Your task to perform on an android device: turn off javascript in the chrome app Image 0: 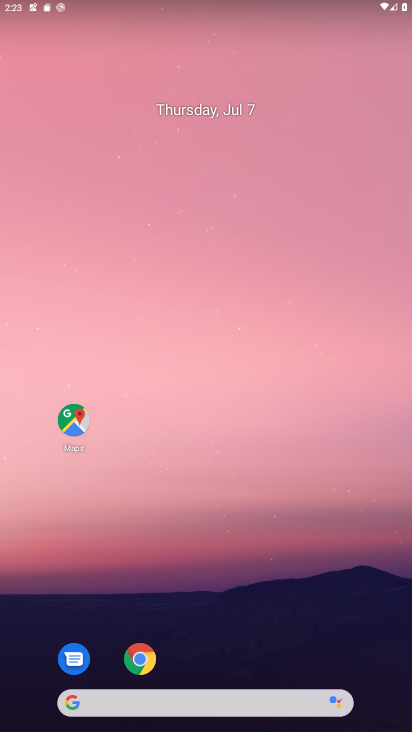
Step 0: drag from (177, 658) to (252, 89)
Your task to perform on an android device: turn off javascript in the chrome app Image 1: 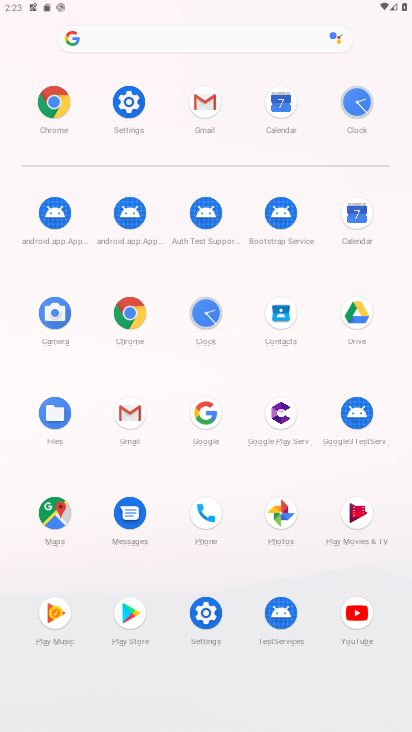
Step 1: click (128, 319)
Your task to perform on an android device: turn off javascript in the chrome app Image 2: 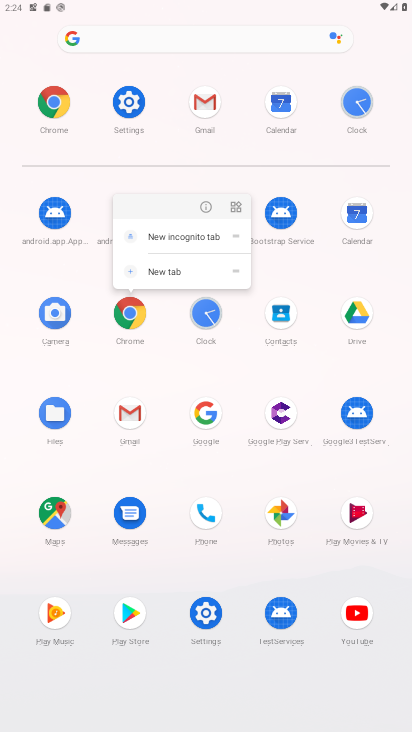
Step 2: click (212, 206)
Your task to perform on an android device: turn off javascript in the chrome app Image 3: 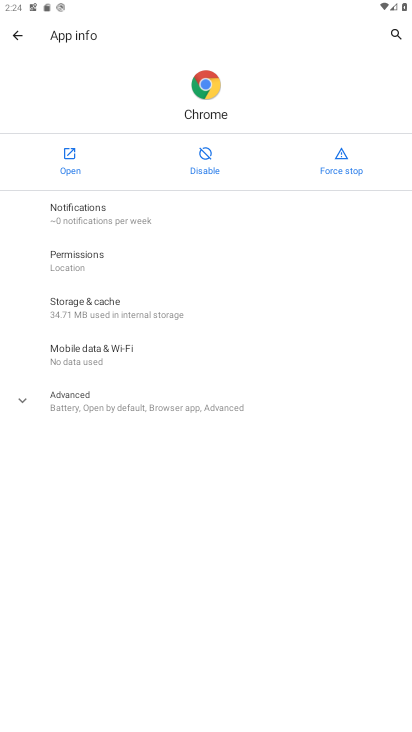
Step 3: click (62, 158)
Your task to perform on an android device: turn off javascript in the chrome app Image 4: 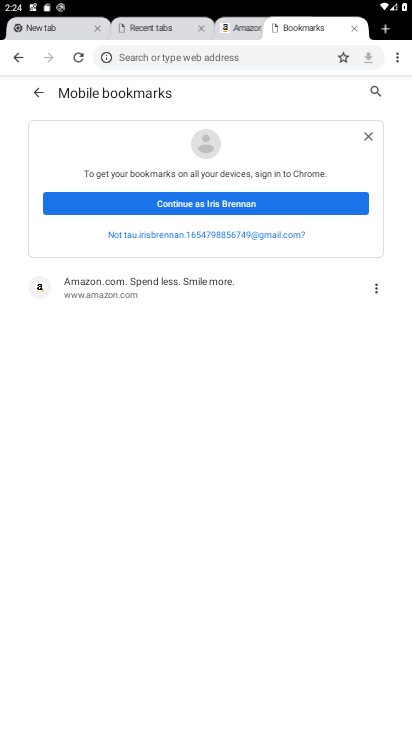
Step 4: click (391, 58)
Your task to perform on an android device: turn off javascript in the chrome app Image 5: 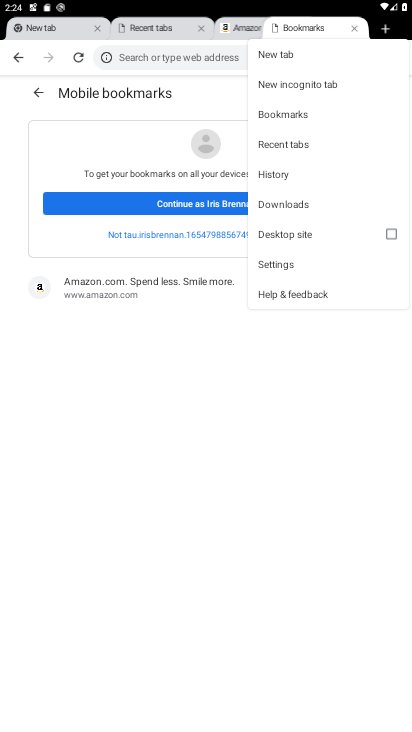
Step 5: click (276, 264)
Your task to perform on an android device: turn off javascript in the chrome app Image 6: 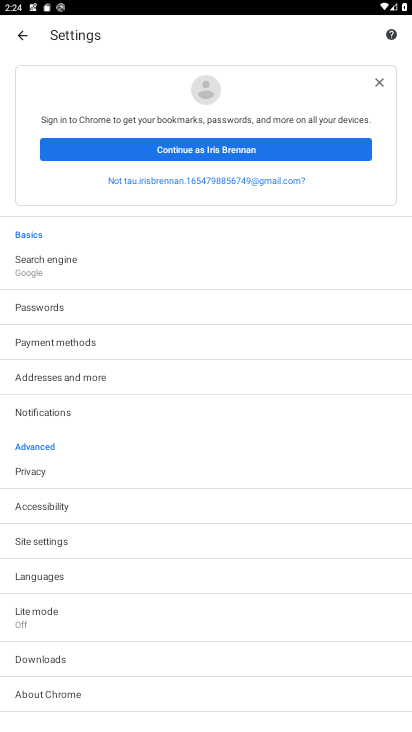
Step 6: click (59, 539)
Your task to perform on an android device: turn off javascript in the chrome app Image 7: 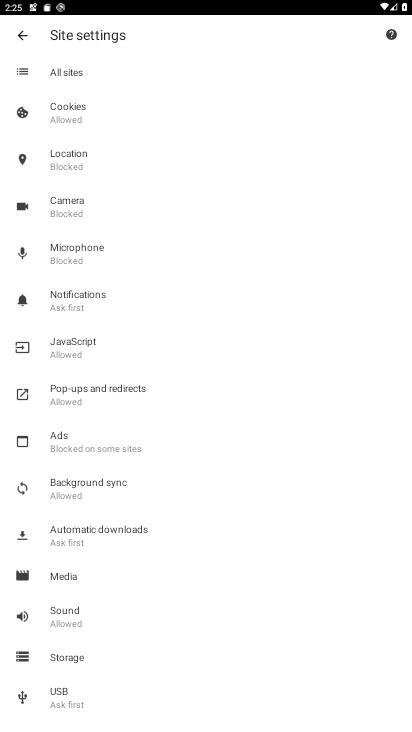
Step 7: click (109, 346)
Your task to perform on an android device: turn off javascript in the chrome app Image 8: 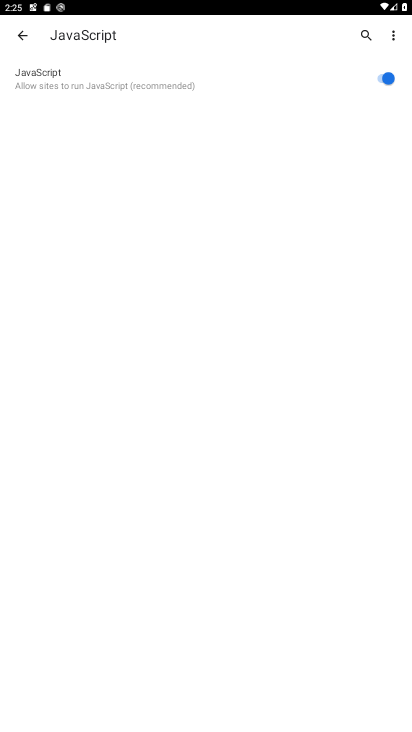
Step 8: drag from (164, 520) to (194, 185)
Your task to perform on an android device: turn off javascript in the chrome app Image 9: 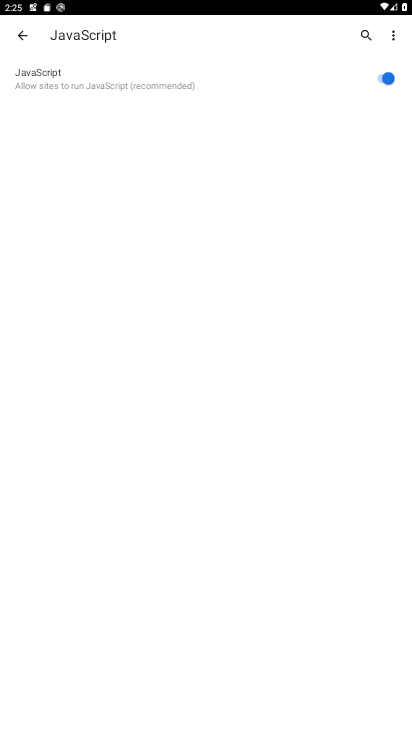
Step 9: click (379, 81)
Your task to perform on an android device: turn off javascript in the chrome app Image 10: 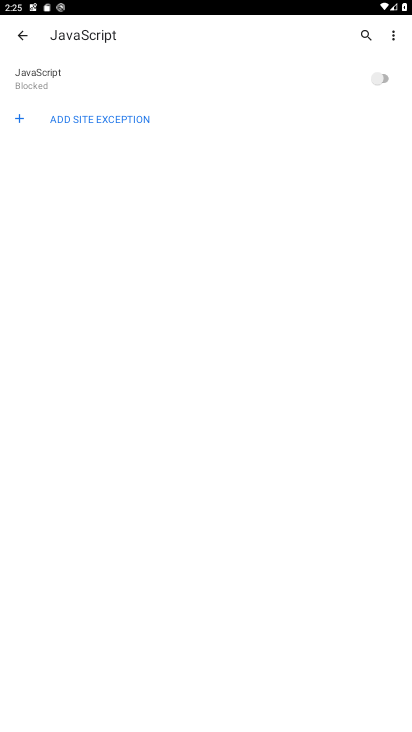
Step 10: task complete